Your task to perform on an android device: Find coffee shops on Maps Image 0: 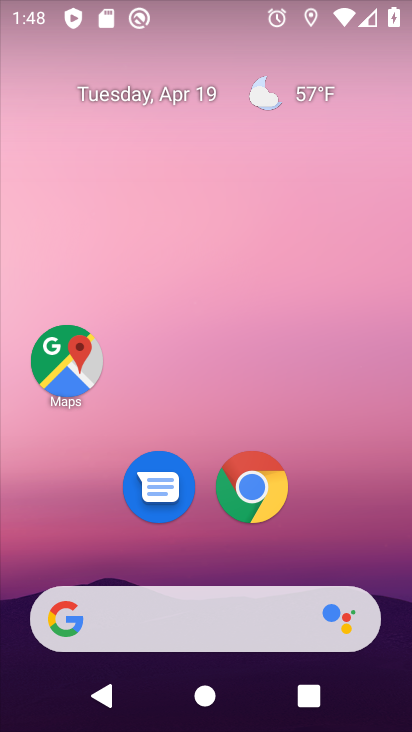
Step 0: drag from (369, 514) to (393, 177)
Your task to perform on an android device: Find coffee shops on Maps Image 1: 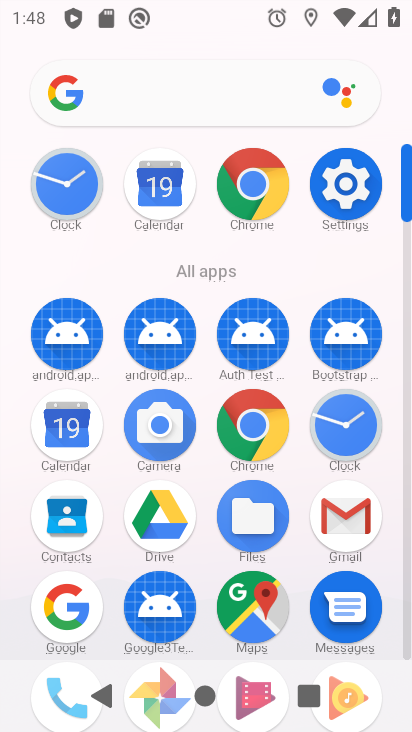
Step 1: click (237, 599)
Your task to perform on an android device: Find coffee shops on Maps Image 2: 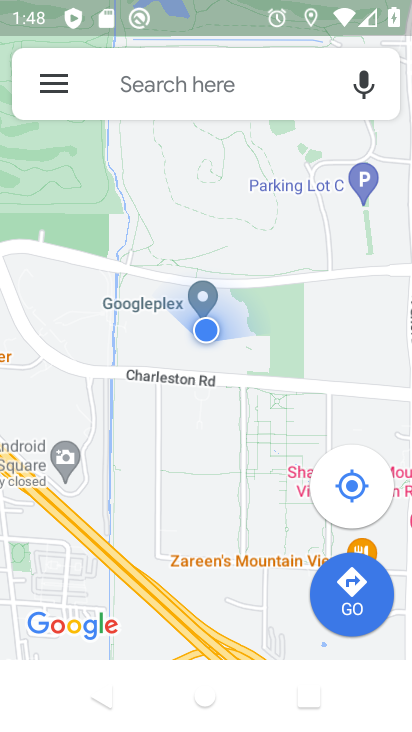
Step 2: click (199, 71)
Your task to perform on an android device: Find coffee shops on Maps Image 3: 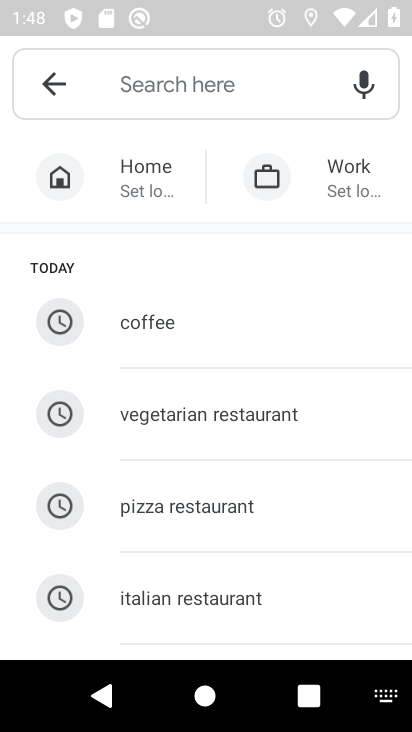
Step 3: type "coffee shopd"
Your task to perform on an android device: Find coffee shops on Maps Image 4: 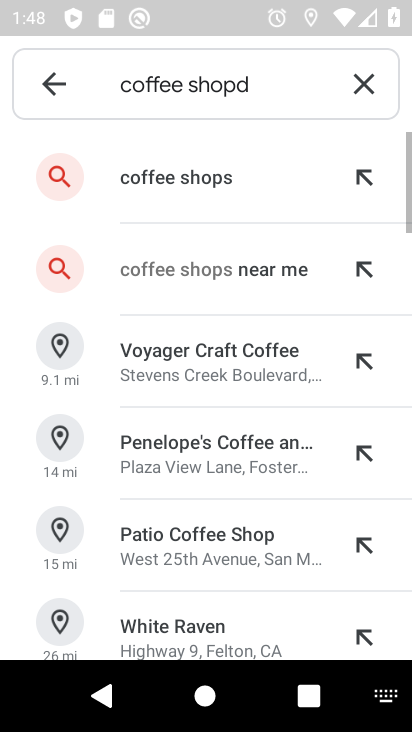
Step 4: click (222, 180)
Your task to perform on an android device: Find coffee shops on Maps Image 5: 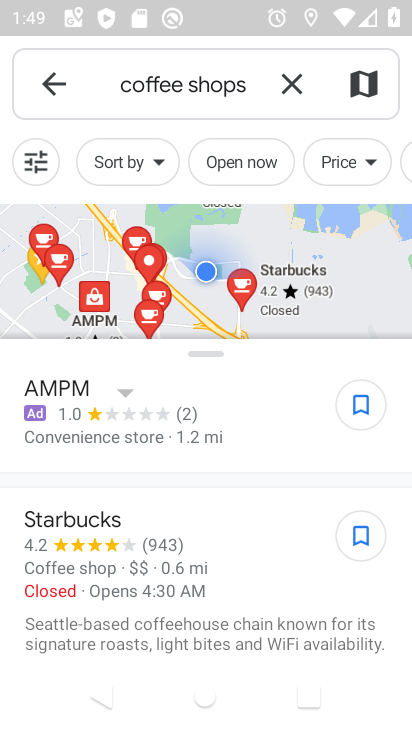
Step 5: task complete